Your task to perform on an android device: check battery use Image 0: 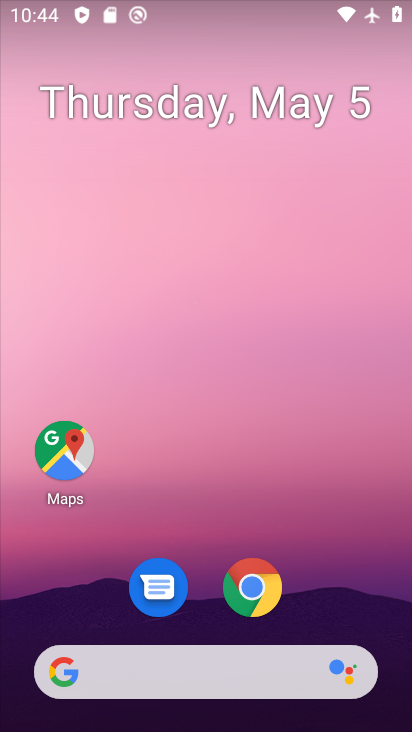
Step 0: drag from (322, 578) to (244, 6)
Your task to perform on an android device: check battery use Image 1: 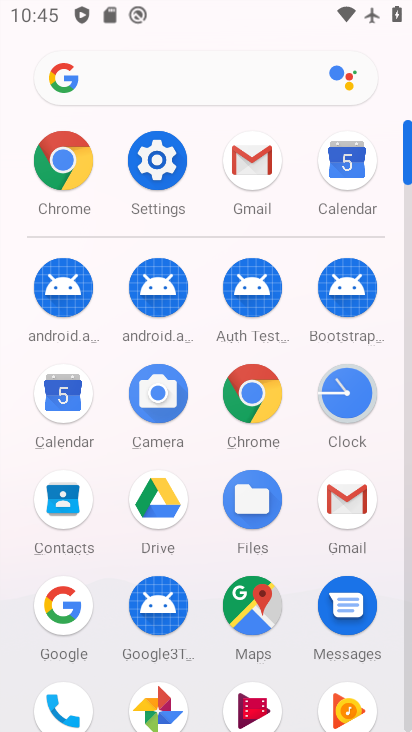
Step 1: click (157, 158)
Your task to perform on an android device: check battery use Image 2: 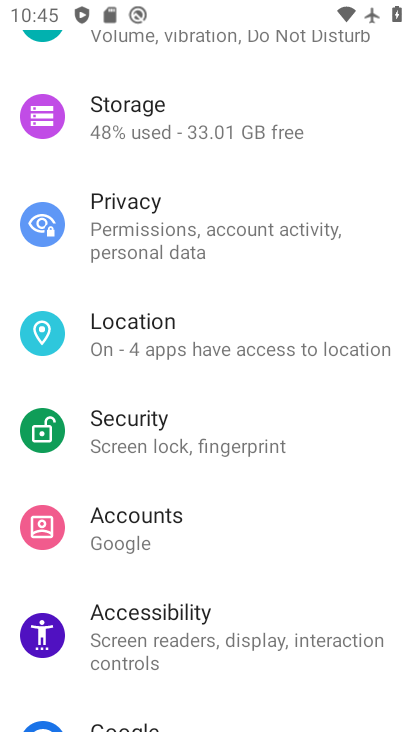
Step 2: drag from (207, 91) to (210, 394)
Your task to perform on an android device: check battery use Image 3: 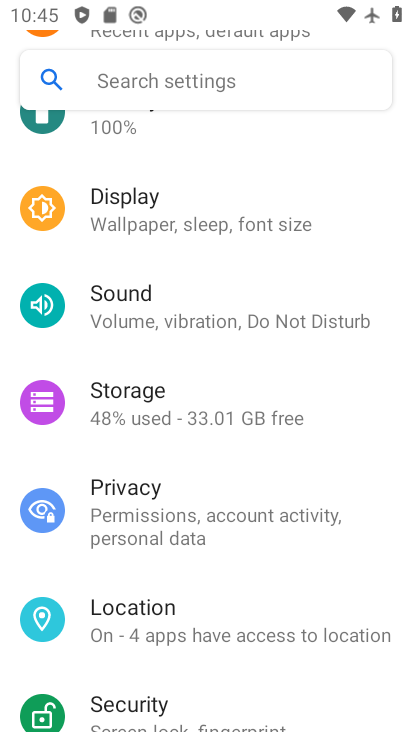
Step 3: drag from (223, 169) to (257, 502)
Your task to perform on an android device: check battery use Image 4: 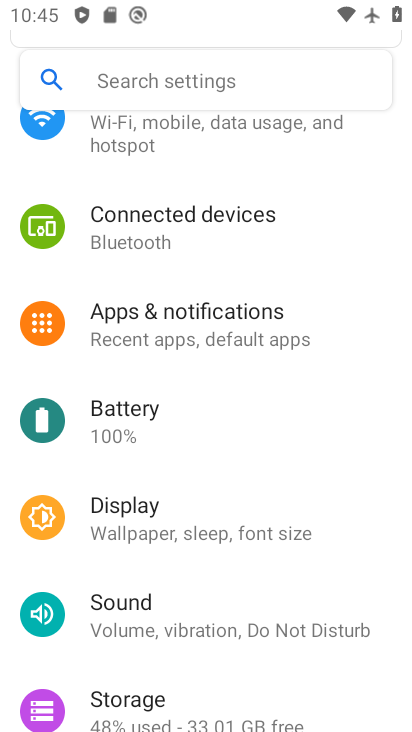
Step 4: drag from (249, 208) to (296, 574)
Your task to perform on an android device: check battery use Image 5: 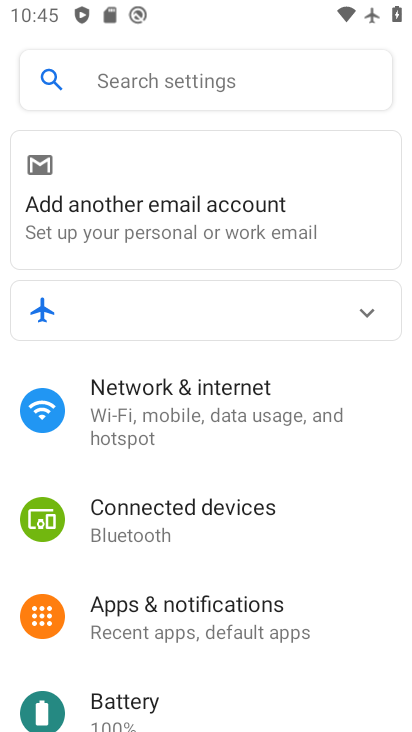
Step 5: drag from (295, 561) to (274, 148)
Your task to perform on an android device: check battery use Image 6: 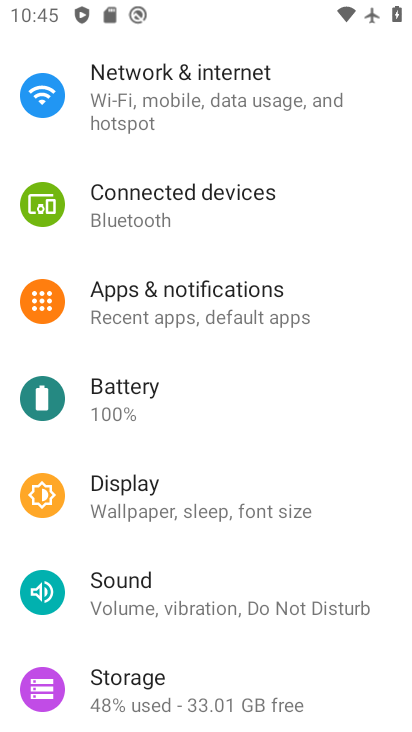
Step 6: drag from (233, 556) to (250, 126)
Your task to perform on an android device: check battery use Image 7: 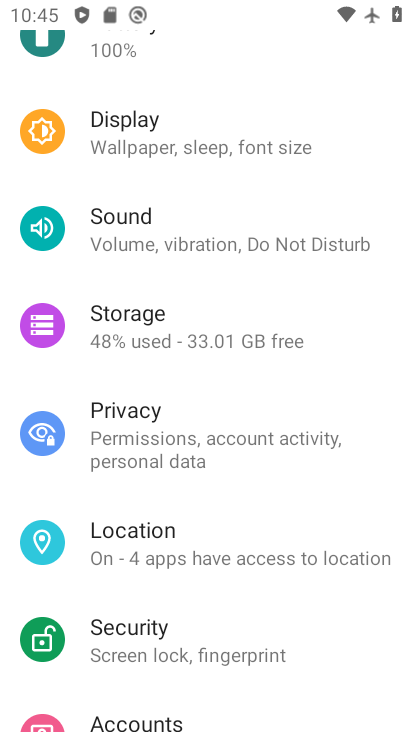
Step 7: drag from (293, 568) to (268, 112)
Your task to perform on an android device: check battery use Image 8: 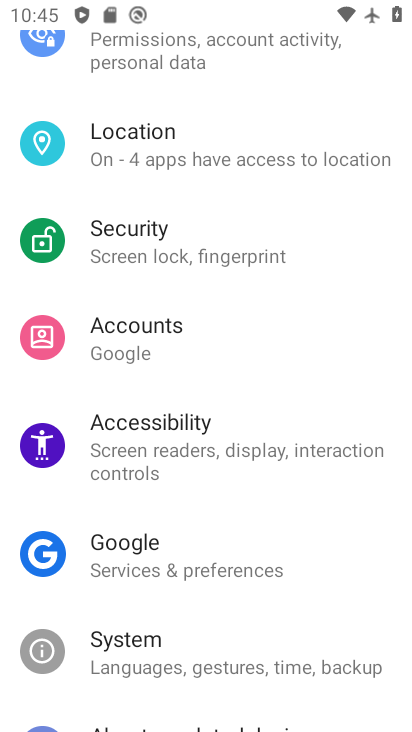
Step 8: drag from (259, 530) to (257, 50)
Your task to perform on an android device: check battery use Image 9: 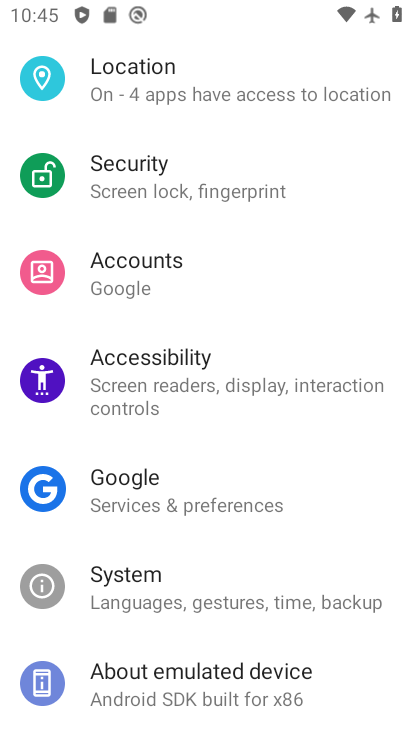
Step 9: drag from (248, 548) to (269, 68)
Your task to perform on an android device: check battery use Image 10: 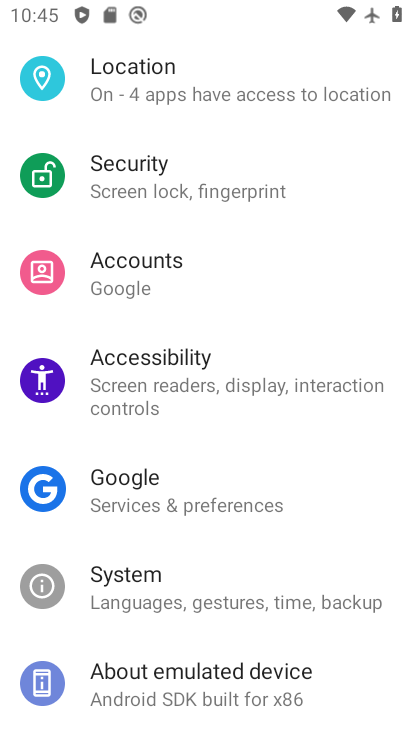
Step 10: drag from (213, 184) to (210, 591)
Your task to perform on an android device: check battery use Image 11: 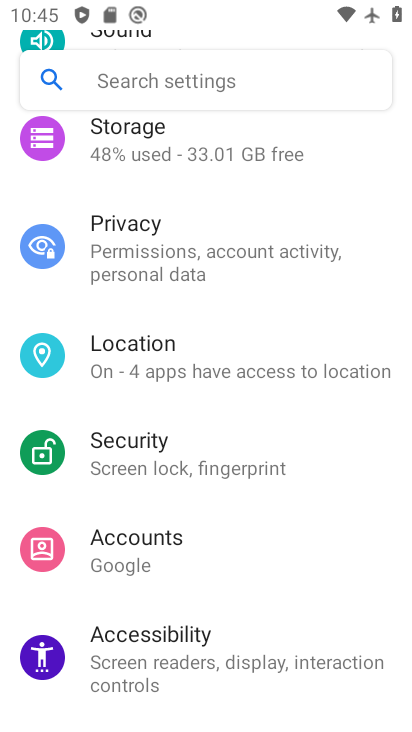
Step 11: drag from (213, 241) to (252, 598)
Your task to perform on an android device: check battery use Image 12: 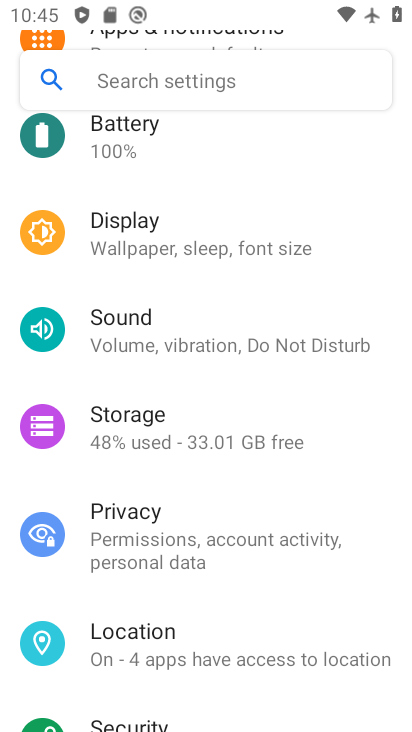
Step 12: click (164, 131)
Your task to perform on an android device: check battery use Image 13: 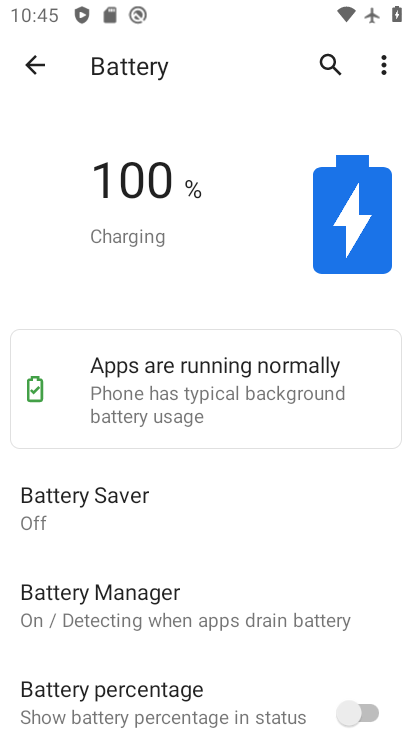
Step 13: drag from (185, 645) to (227, 199)
Your task to perform on an android device: check battery use Image 14: 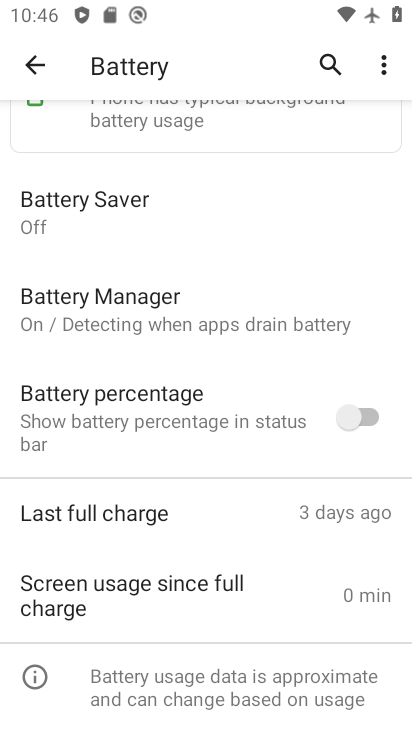
Step 14: drag from (227, 199) to (210, 650)
Your task to perform on an android device: check battery use Image 15: 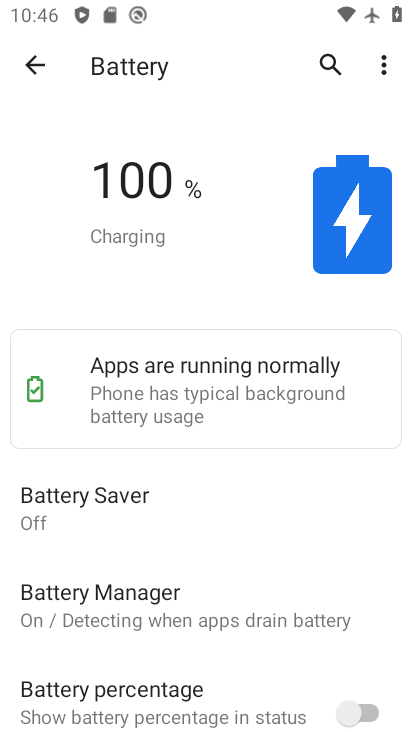
Step 15: click (381, 66)
Your task to perform on an android device: check battery use Image 16: 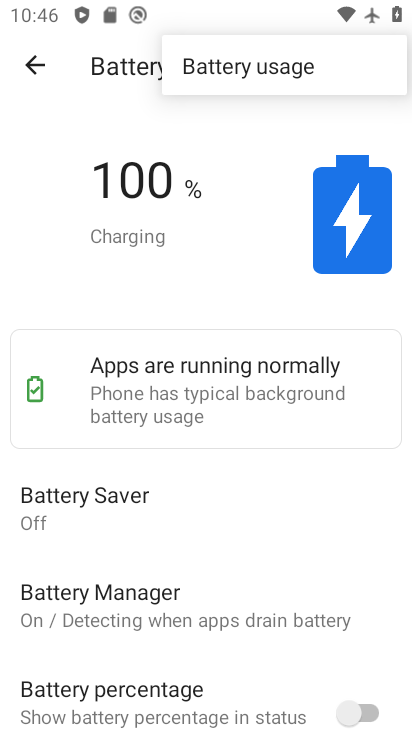
Step 16: click (294, 63)
Your task to perform on an android device: check battery use Image 17: 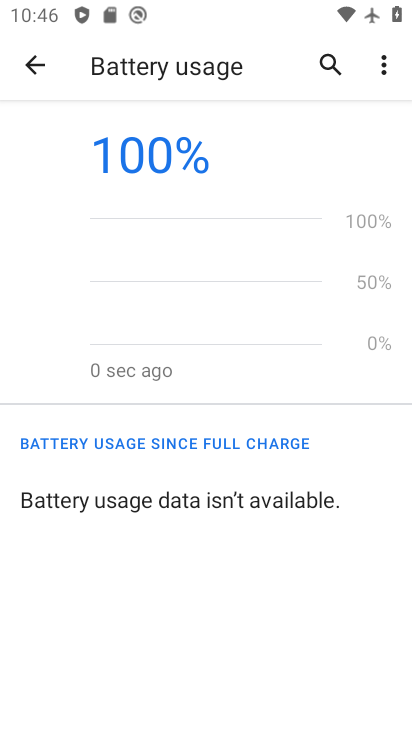
Step 17: task complete